Your task to perform on an android device: open app "Adobe Express: Graphic Design" (install if not already installed) Image 0: 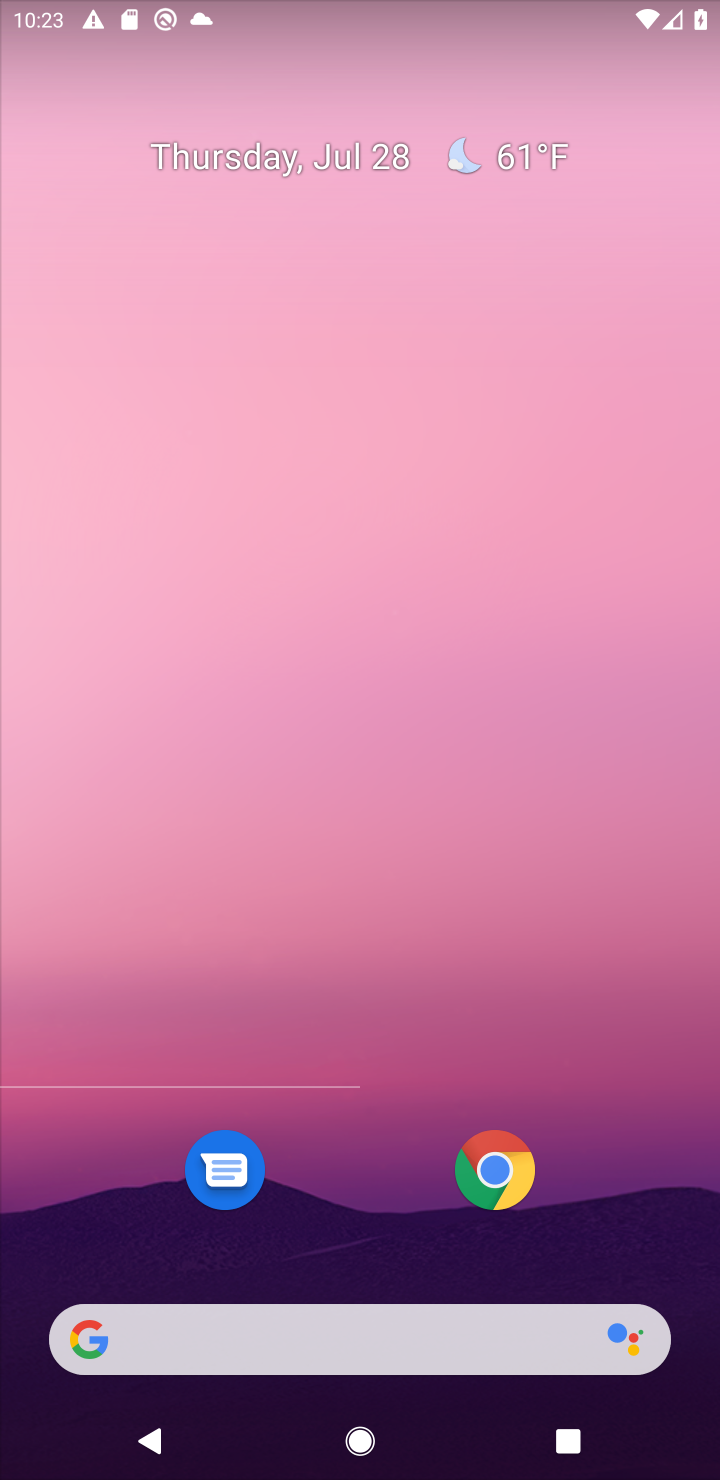
Step 0: press home button
Your task to perform on an android device: open app "Adobe Express: Graphic Design" (install if not already installed) Image 1: 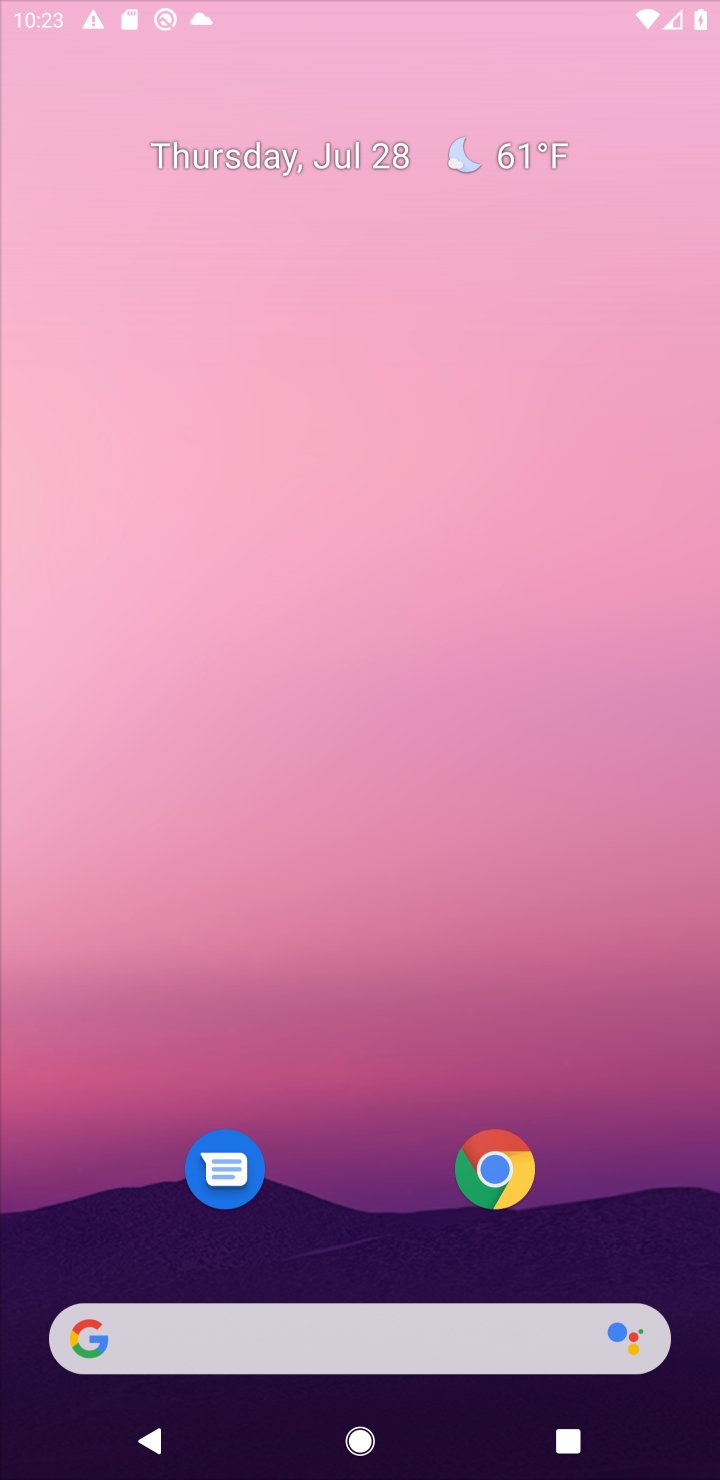
Step 1: drag from (347, 668) to (367, 169)
Your task to perform on an android device: open app "Adobe Express: Graphic Design" (install if not already installed) Image 2: 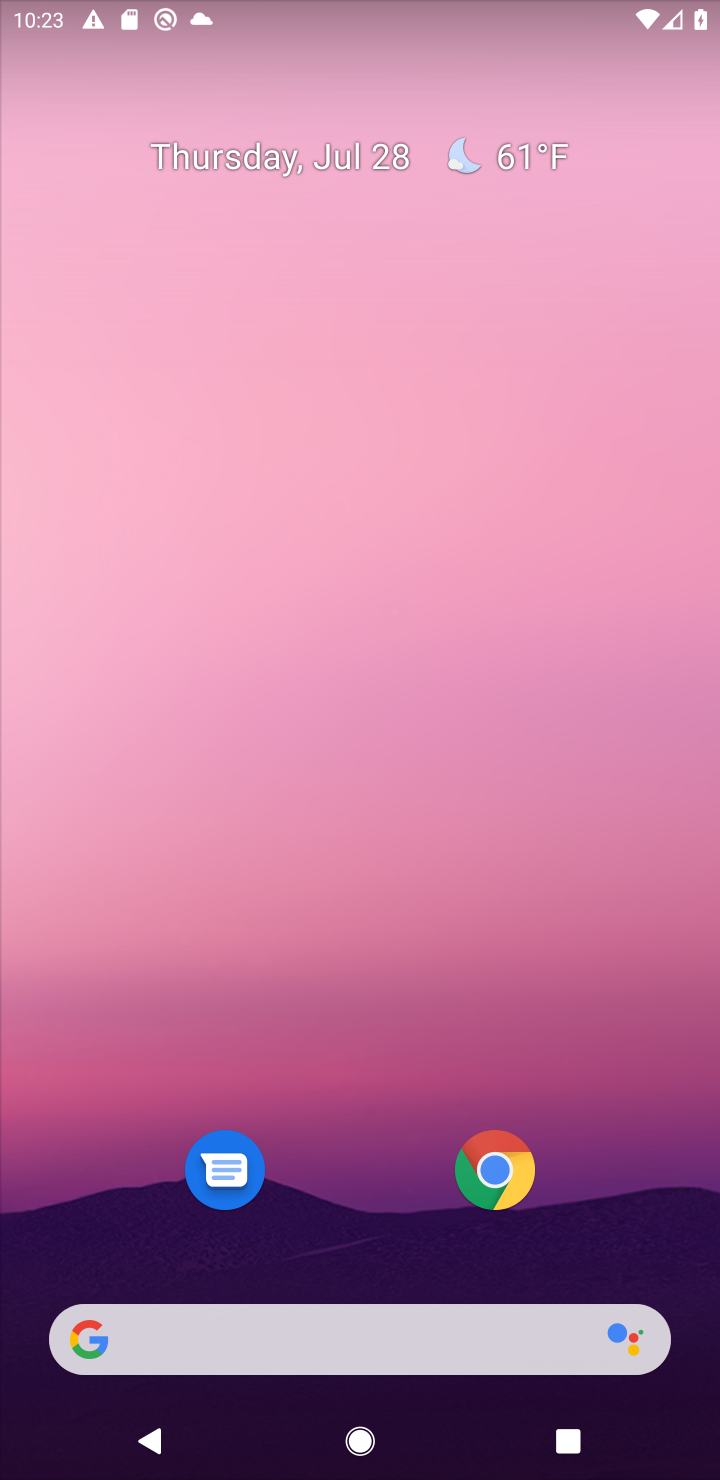
Step 2: drag from (334, 1204) to (370, 14)
Your task to perform on an android device: open app "Adobe Express: Graphic Design" (install if not already installed) Image 3: 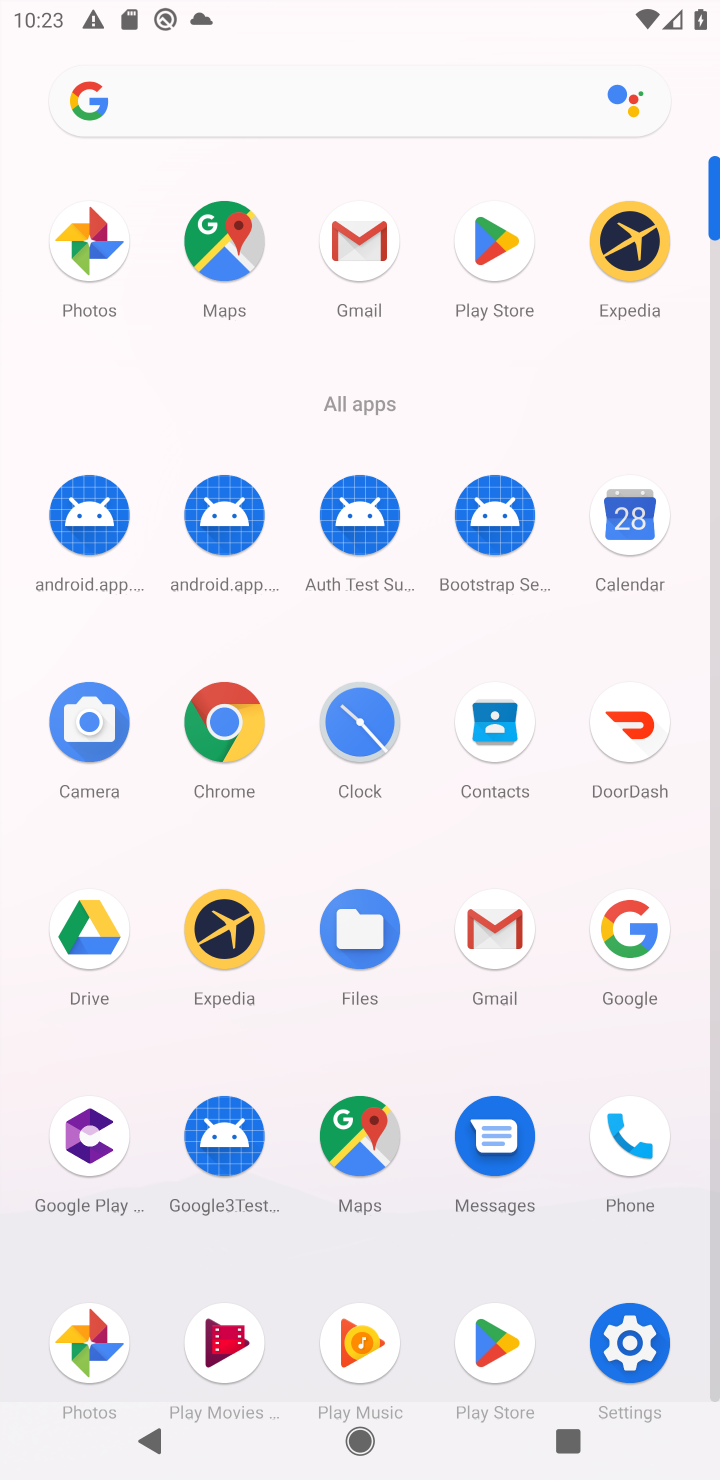
Step 3: click (508, 1346)
Your task to perform on an android device: open app "Adobe Express: Graphic Design" (install if not already installed) Image 4: 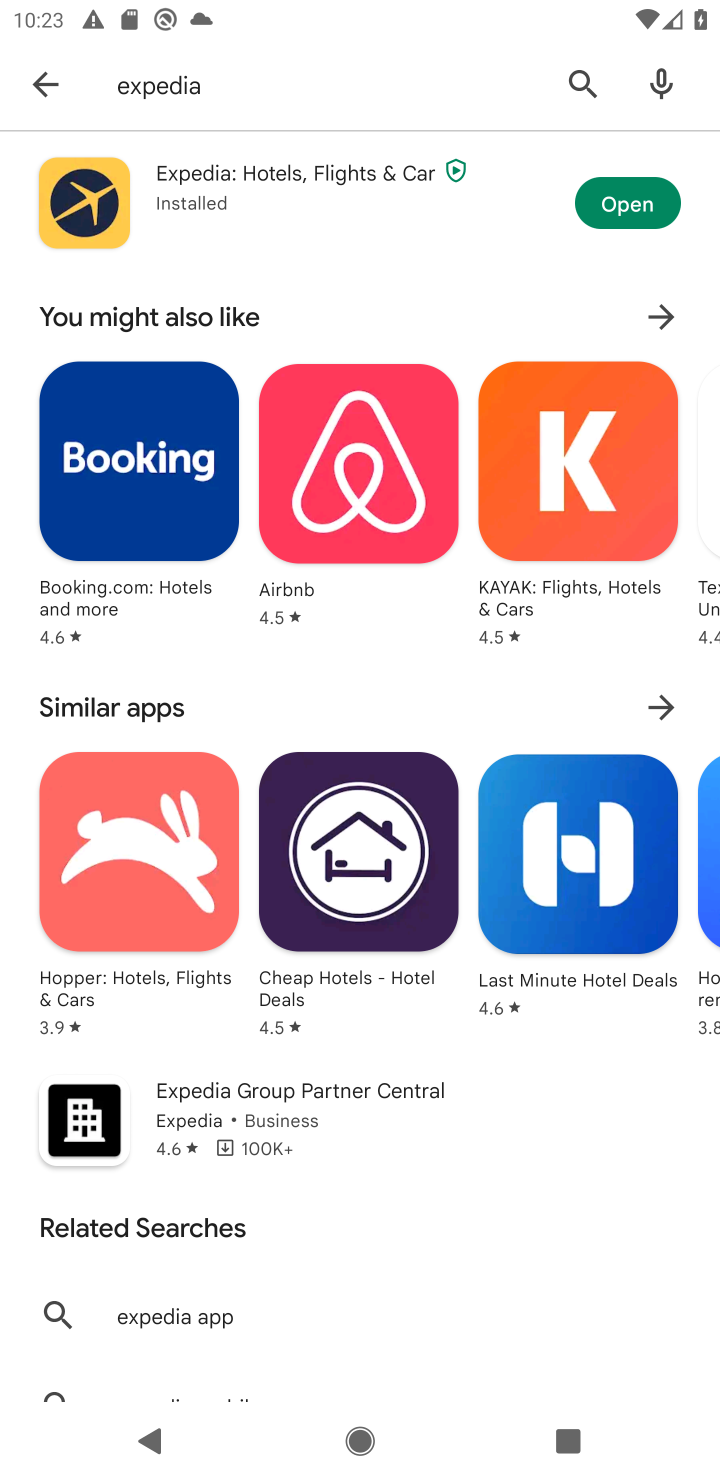
Step 4: click (226, 92)
Your task to perform on an android device: open app "Adobe Express: Graphic Design" (install if not already installed) Image 5: 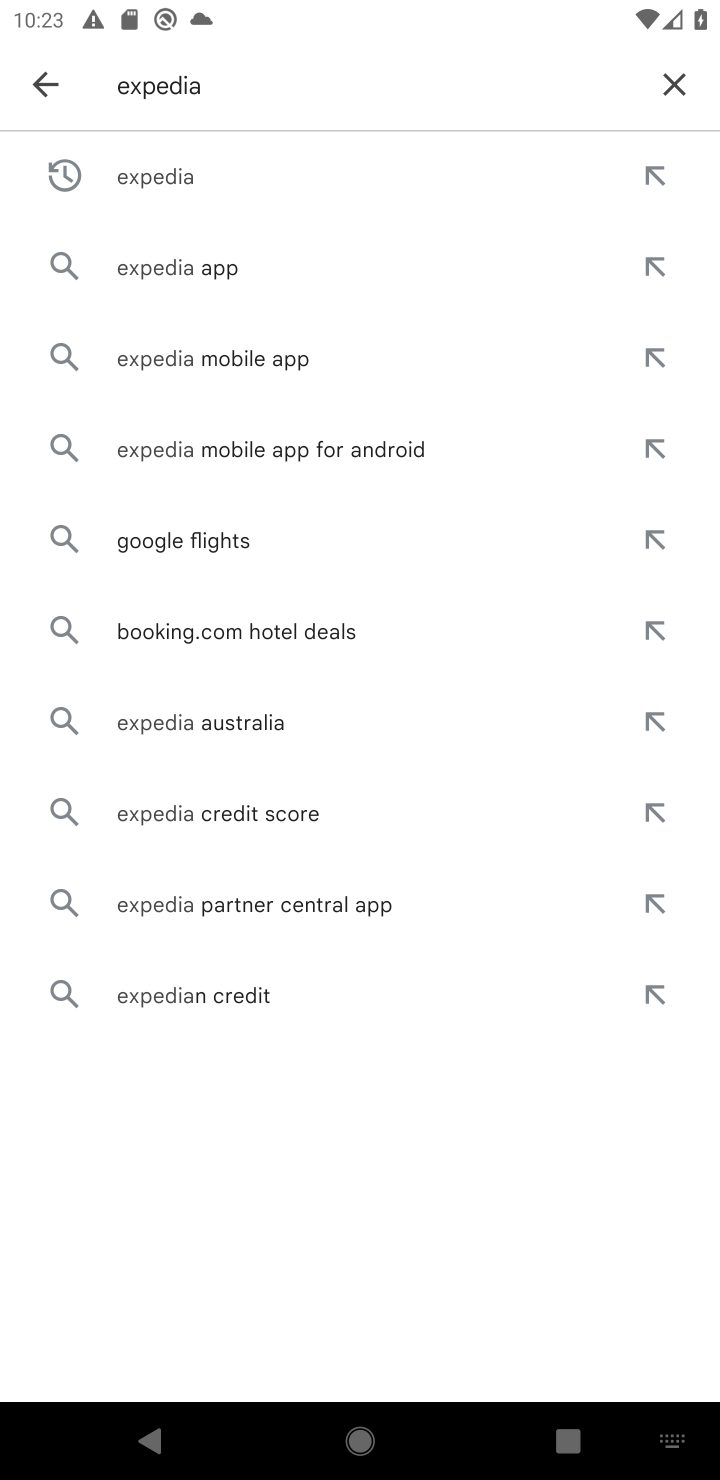
Step 5: click (668, 64)
Your task to perform on an android device: open app "Adobe Express: Graphic Design" (install if not already installed) Image 6: 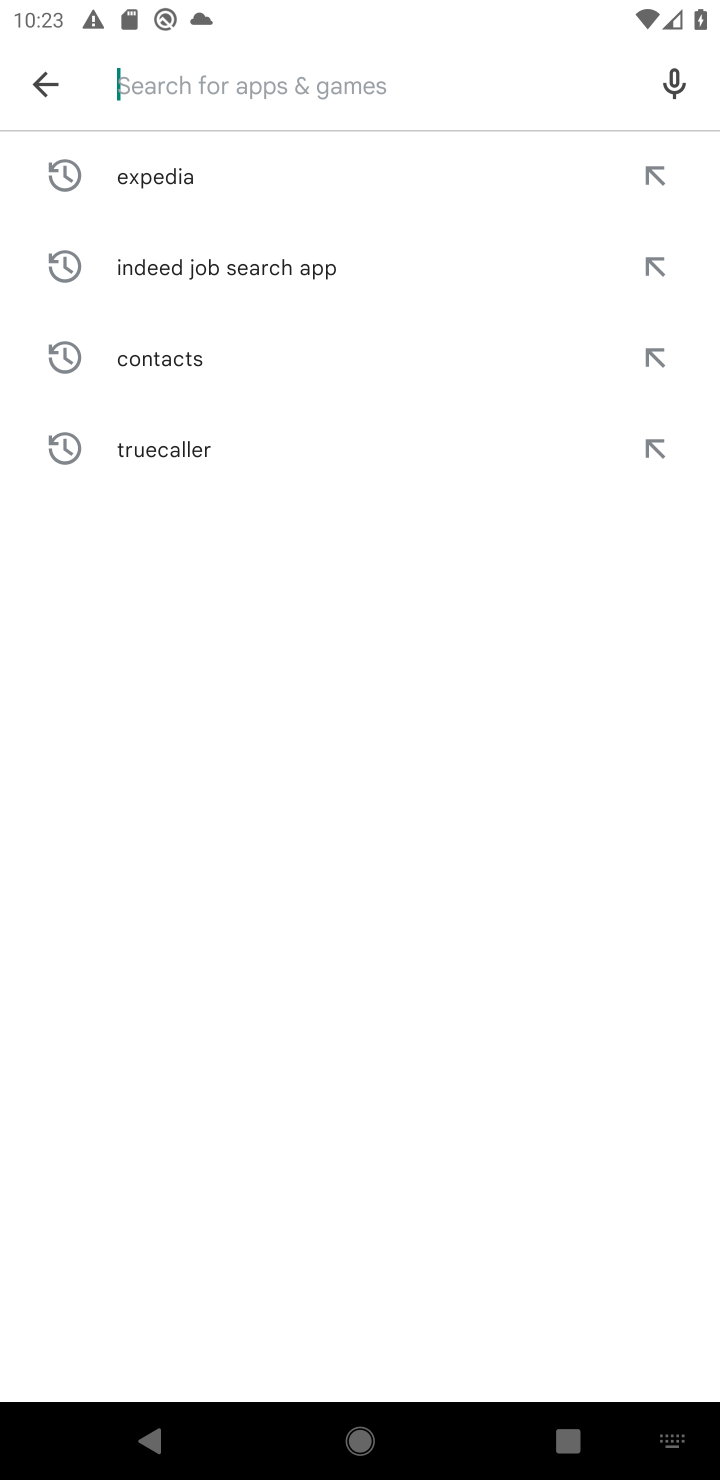
Step 6: type "Adobe Express"
Your task to perform on an android device: open app "Adobe Express: Graphic Design" (install if not already installed) Image 7: 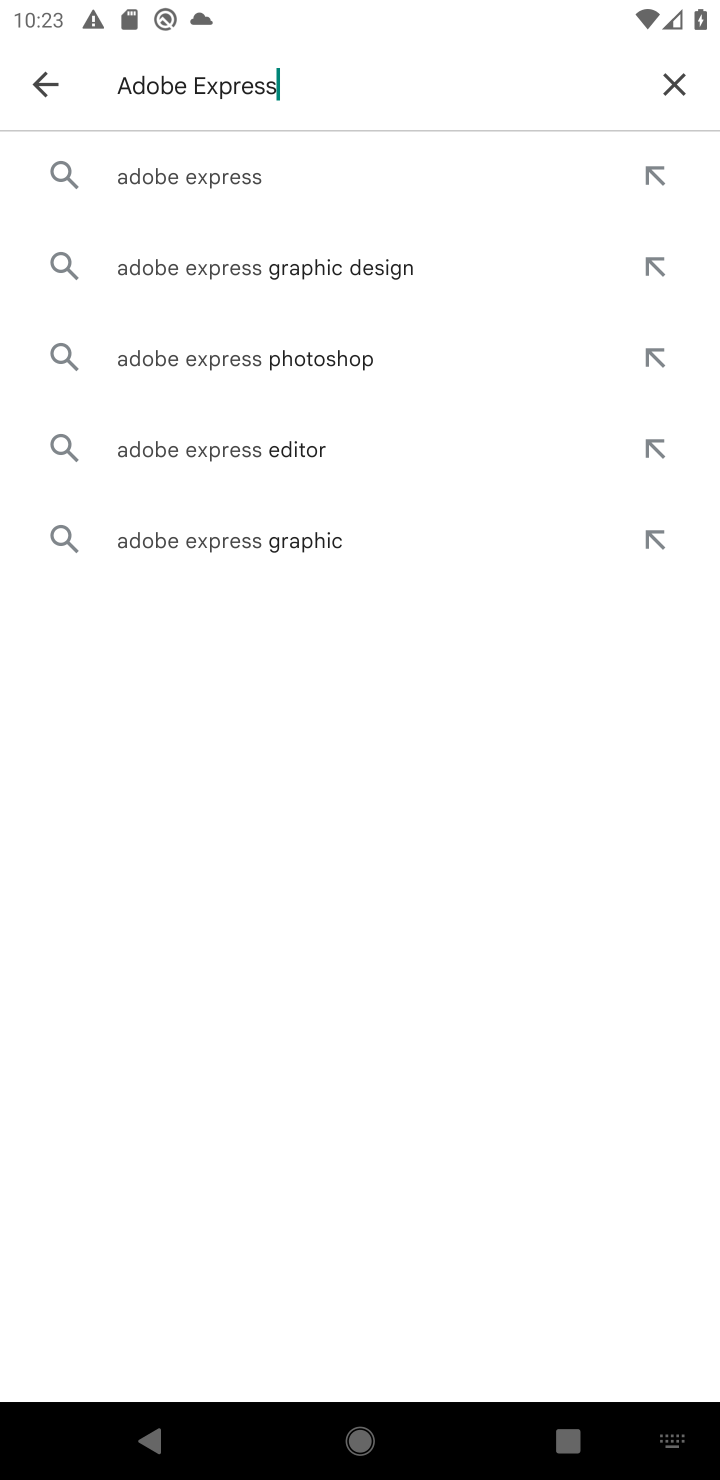
Step 7: click (228, 151)
Your task to perform on an android device: open app "Adobe Express: Graphic Design" (install if not already installed) Image 8: 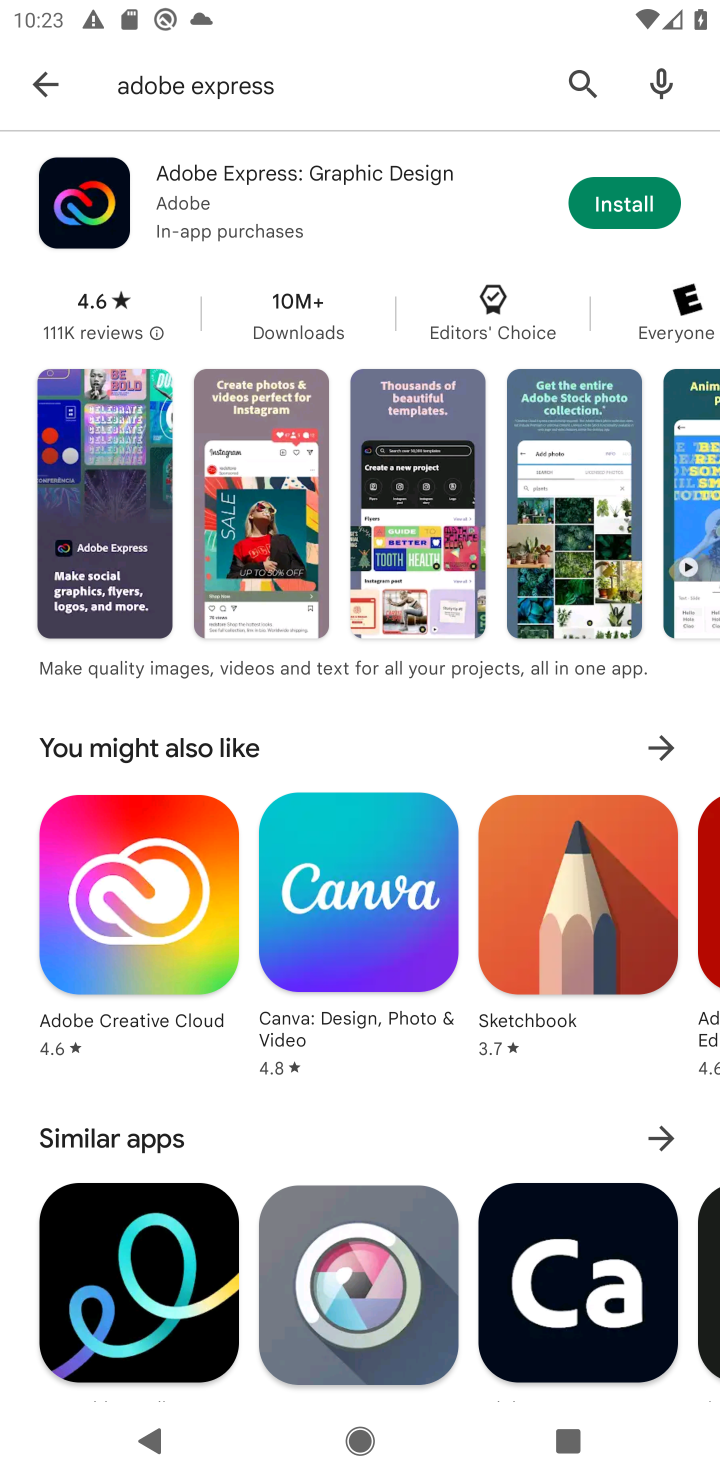
Step 8: click (628, 210)
Your task to perform on an android device: open app "Adobe Express: Graphic Design" (install if not already installed) Image 9: 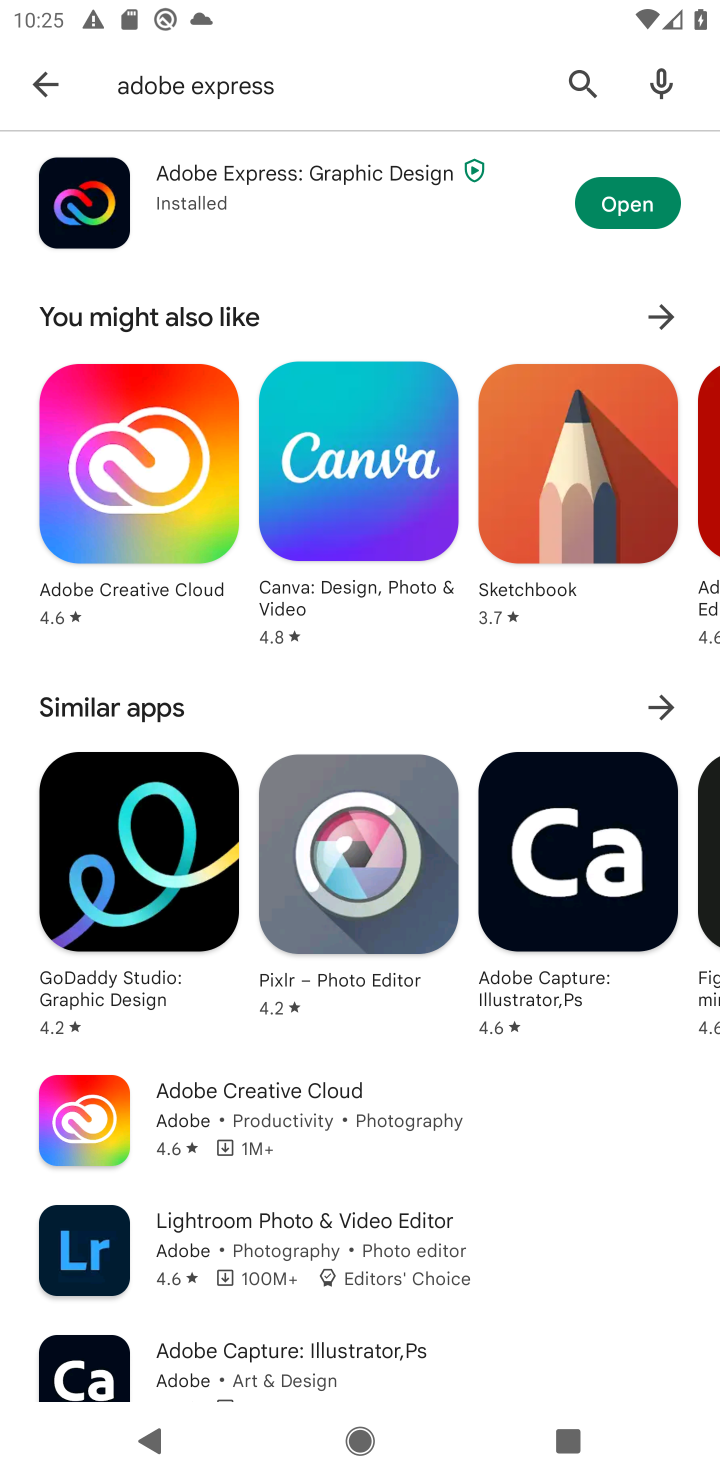
Step 9: click (657, 207)
Your task to perform on an android device: open app "Adobe Express: Graphic Design" (install if not already installed) Image 10: 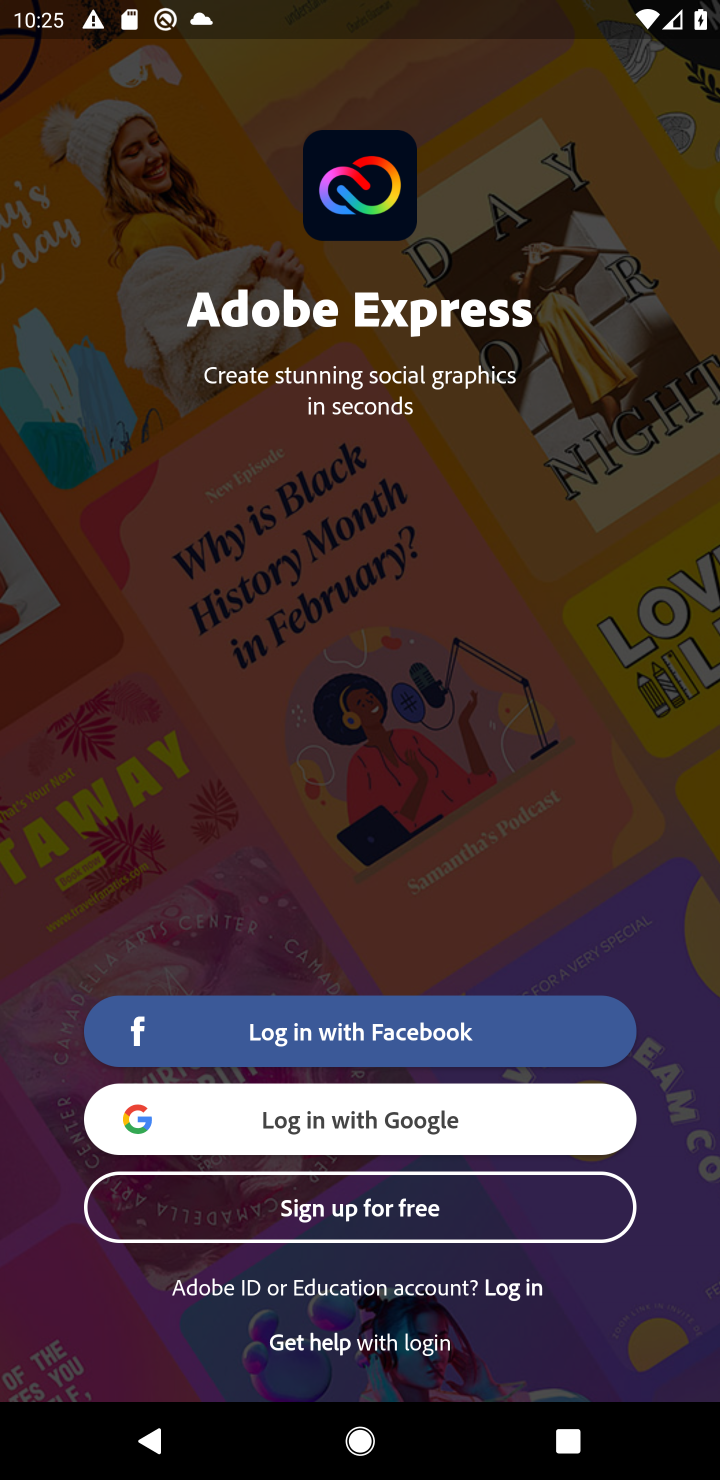
Step 10: click (376, 1121)
Your task to perform on an android device: open app "Adobe Express: Graphic Design" (install if not already installed) Image 11: 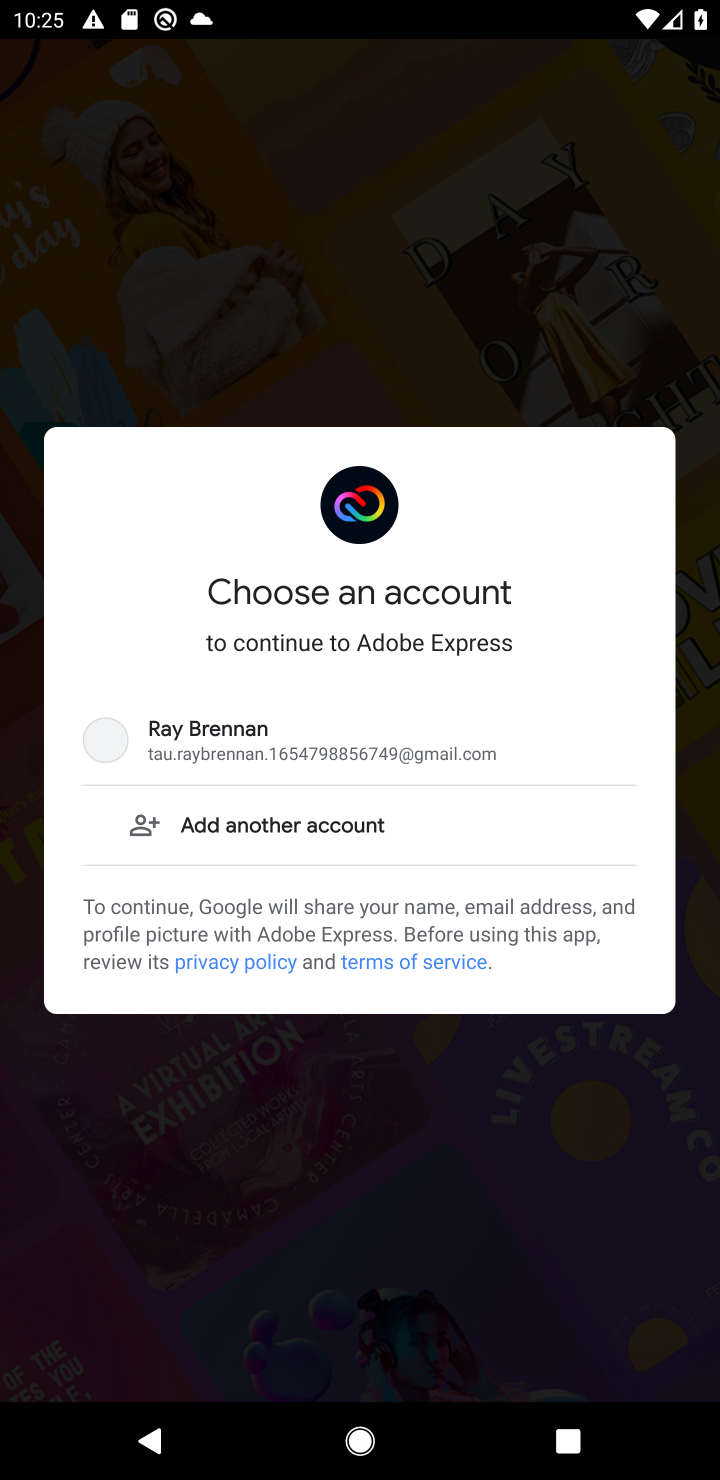
Step 11: click (240, 735)
Your task to perform on an android device: open app "Adobe Express: Graphic Design" (install if not already installed) Image 12: 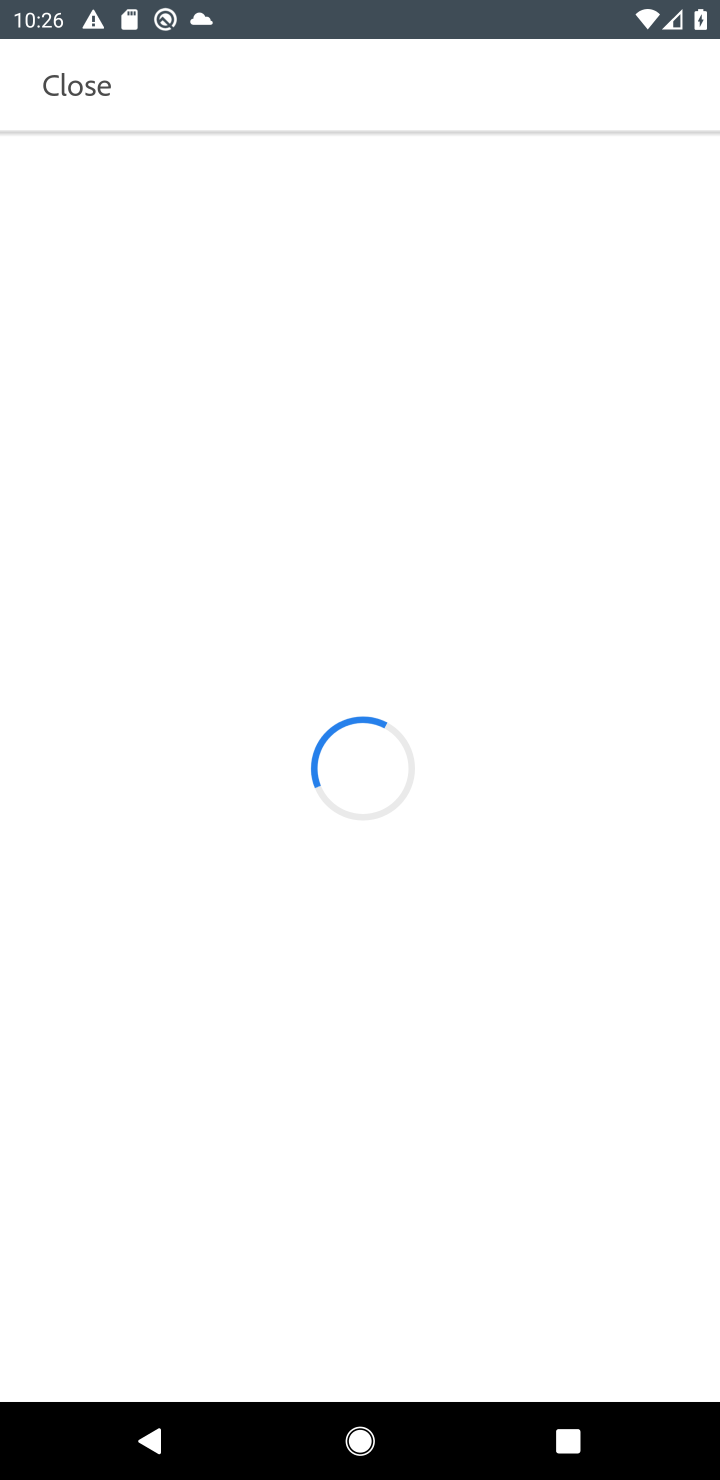
Step 12: press home button
Your task to perform on an android device: open app "Adobe Express: Graphic Design" (install if not already installed) Image 13: 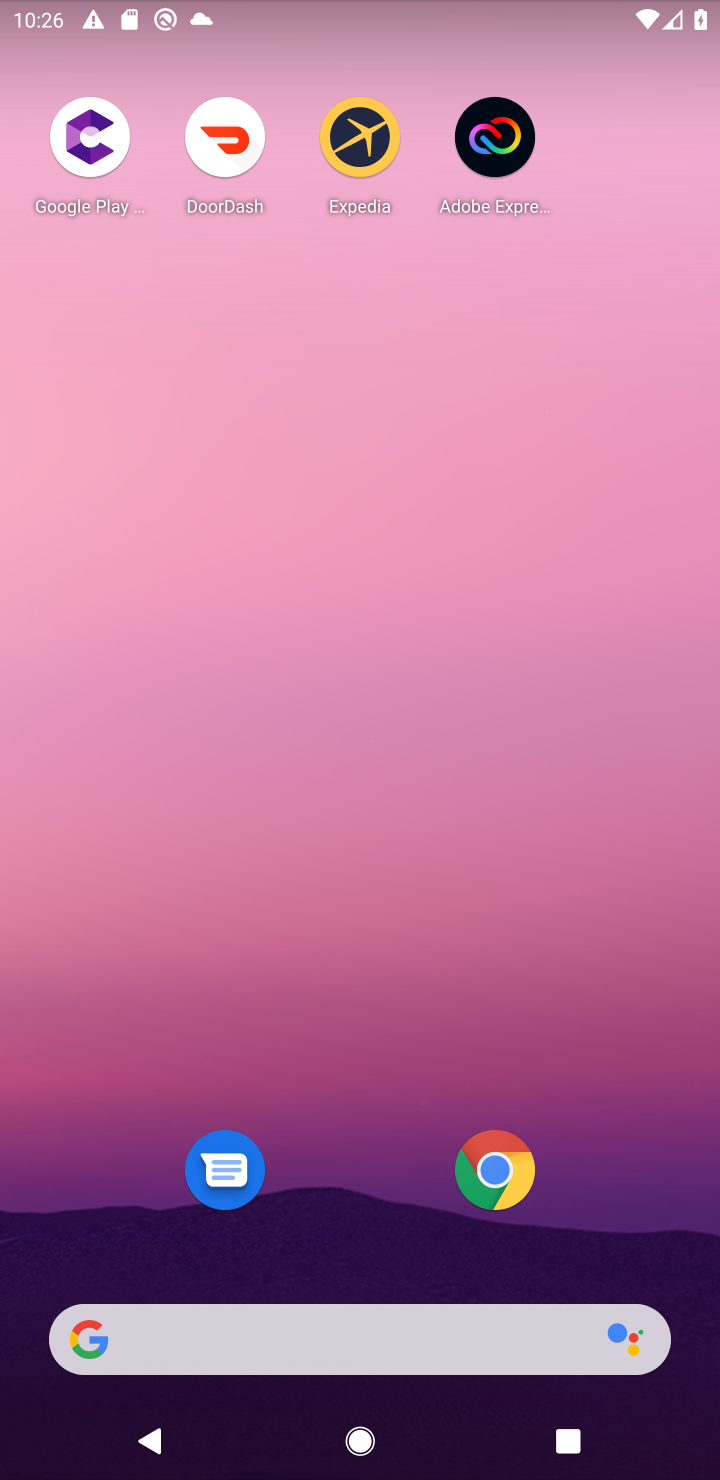
Step 13: drag from (306, 1222) to (519, 10)
Your task to perform on an android device: open app "Adobe Express: Graphic Design" (install if not already installed) Image 14: 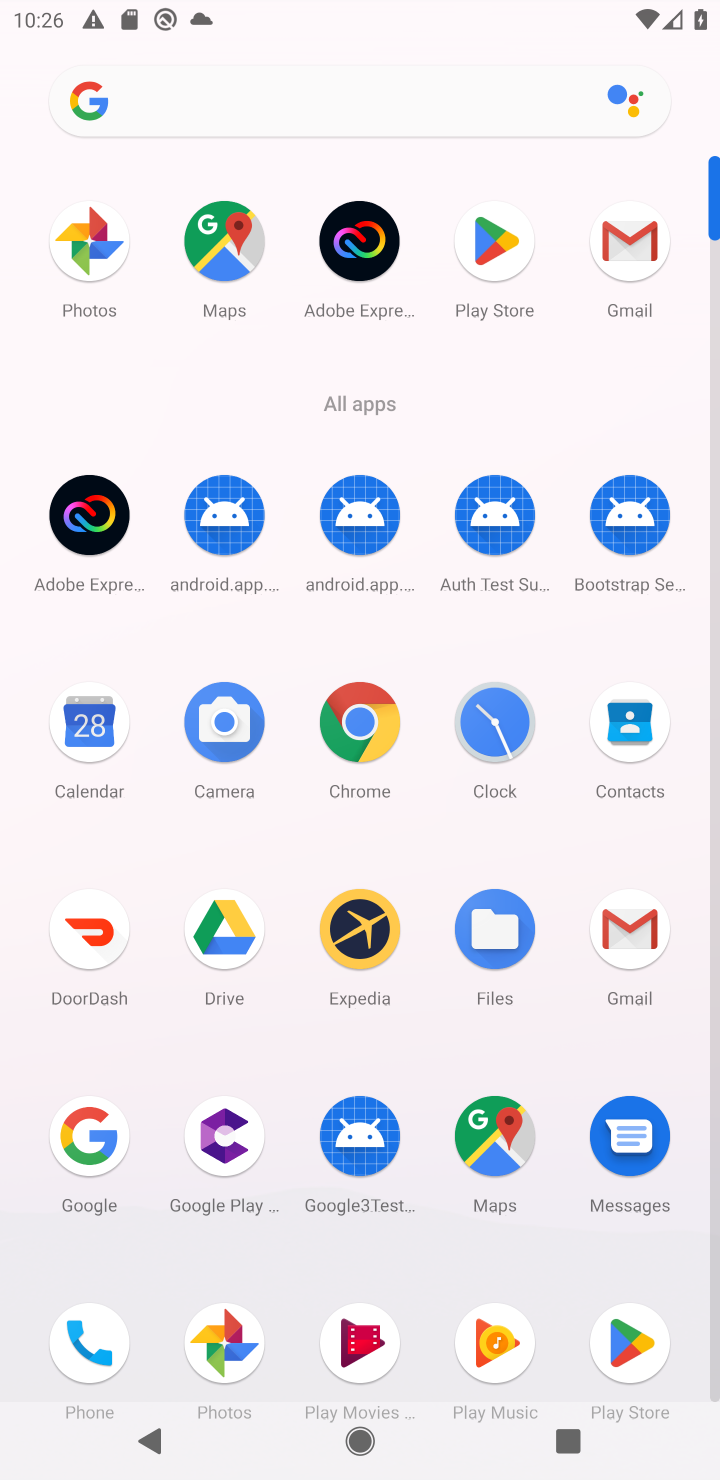
Step 14: click (513, 266)
Your task to perform on an android device: open app "Adobe Express: Graphic Design" (install if not already installed) Image 15: 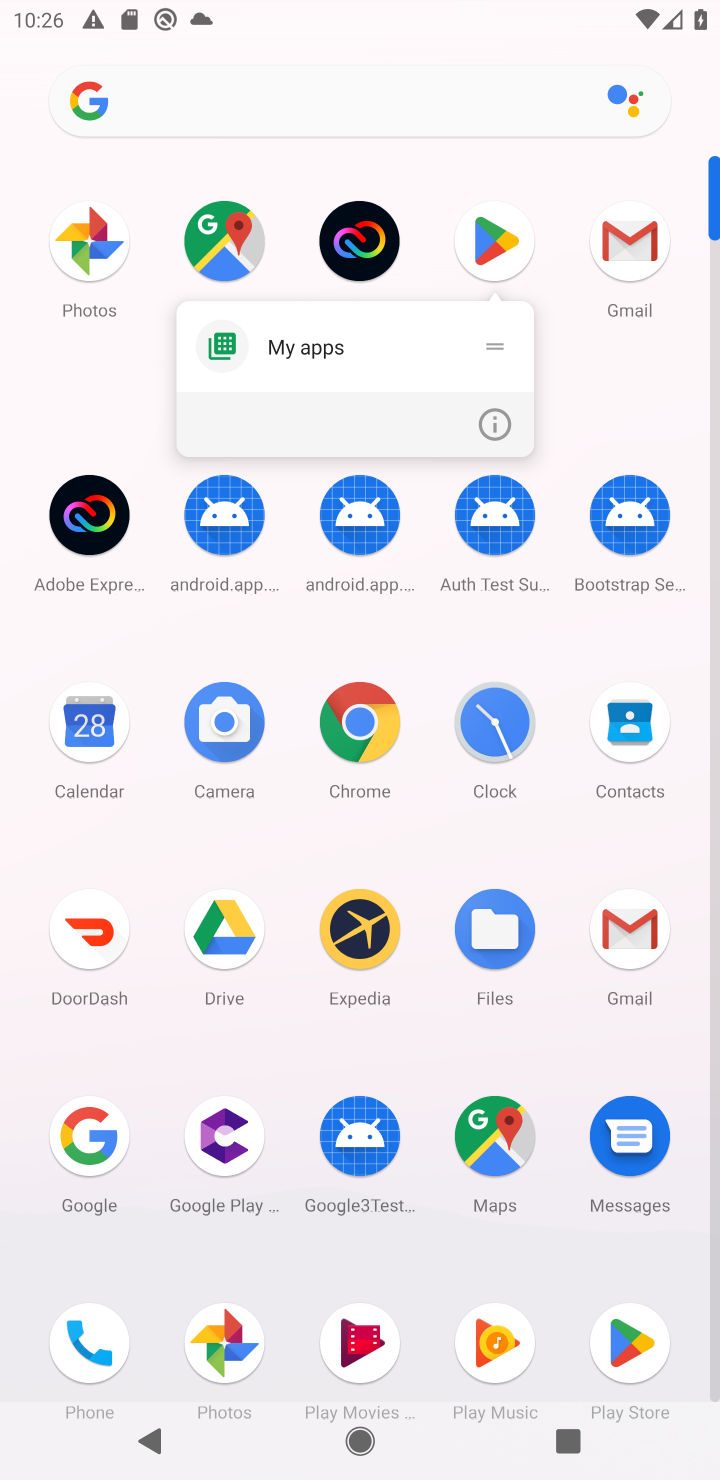
Step 15: click (511, 259)
Your task to perform on an android device: open app "Adobe Express: Graphic Design" (install if not already installed) Image 16: 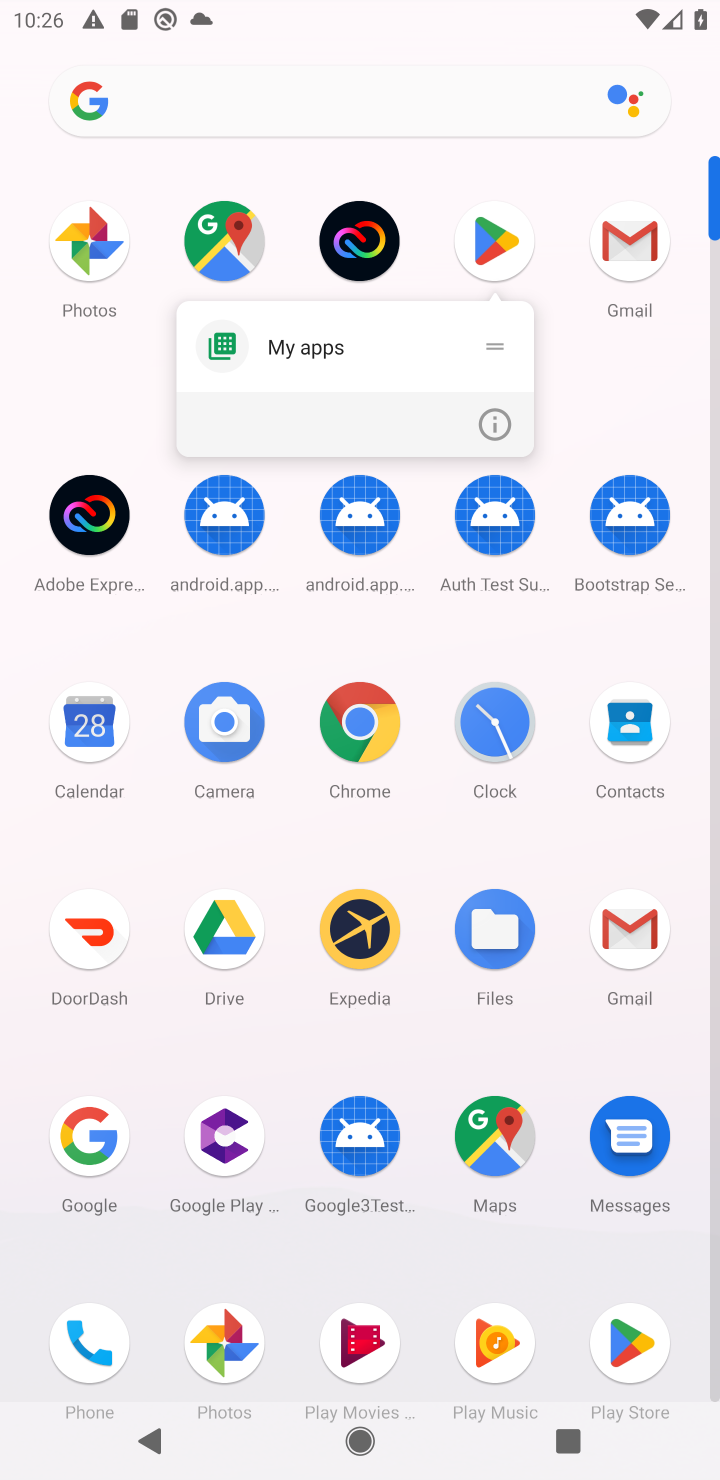
Step 16: click (514, 264)
Your task to perform on an android device: open app "Adobe Express: Graphic Design" (install if not already installed) Image 17: 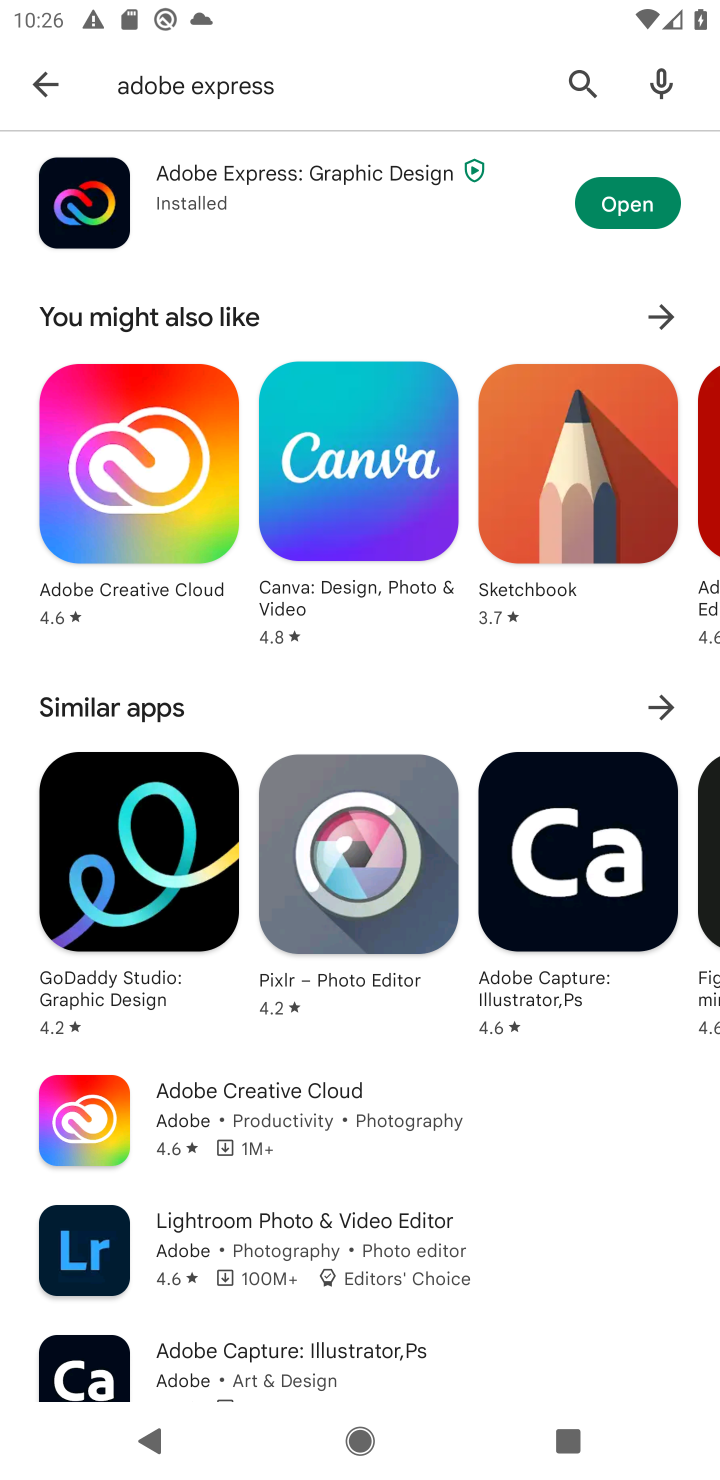
Step 17: click (507, 274)
Your task to perform on an android device: open app "Adobe Express: Graphic Design" (install if not already installed) Image 18: 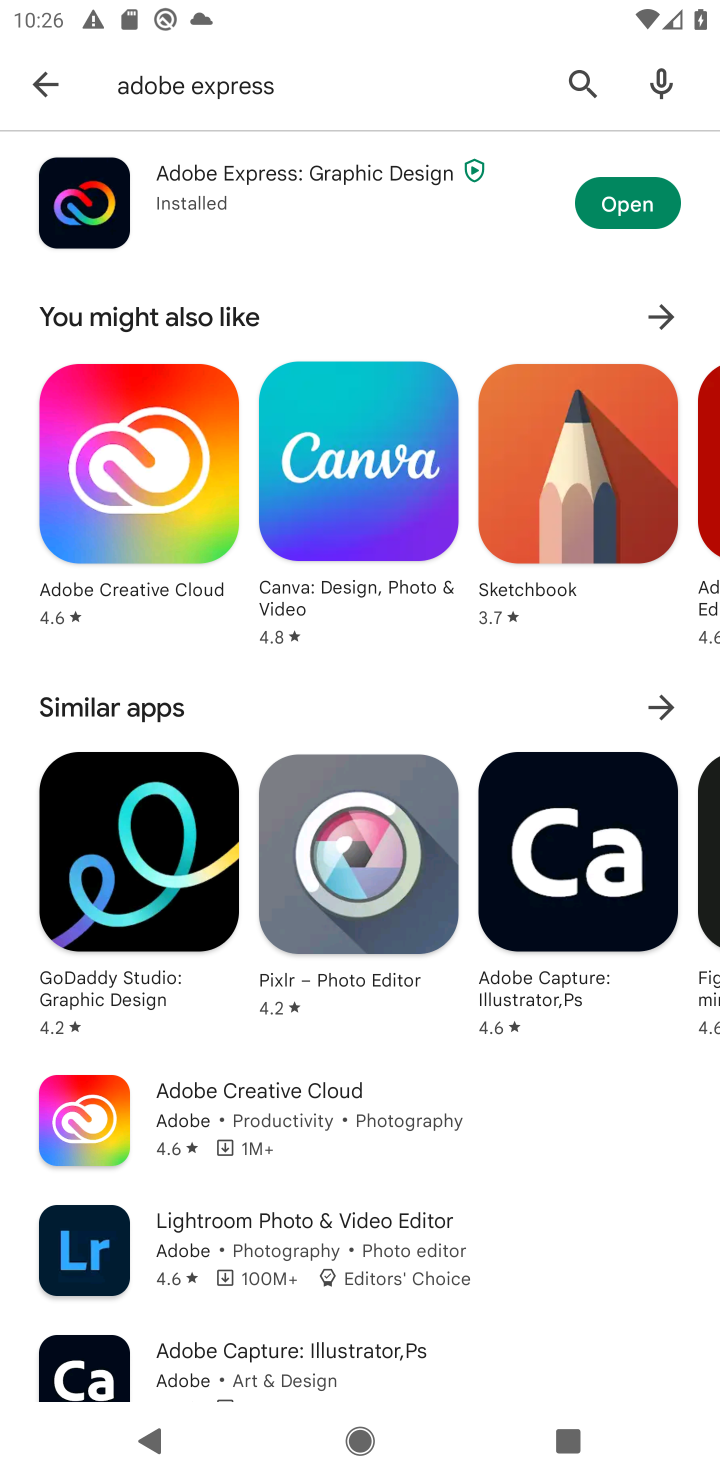
Step 18: click (260, 93)
Your task to perform on an android device: open app "Adobe Express: Graphic Design" (install if not already installed) Image 19: 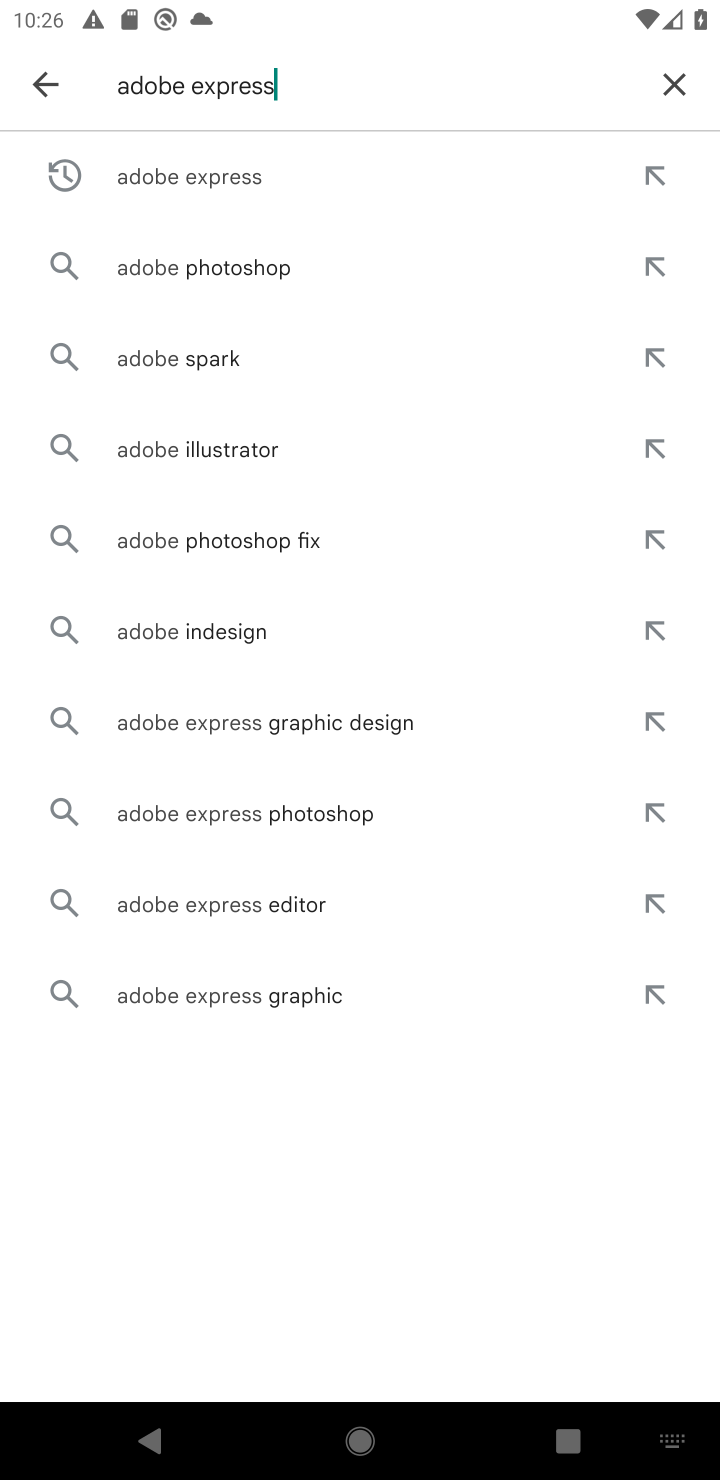
Step 19: click (686, 77)
Your task to perform on an android device: open app "Adobe Express: Graphic Design" (install if not already installed) Image 20: 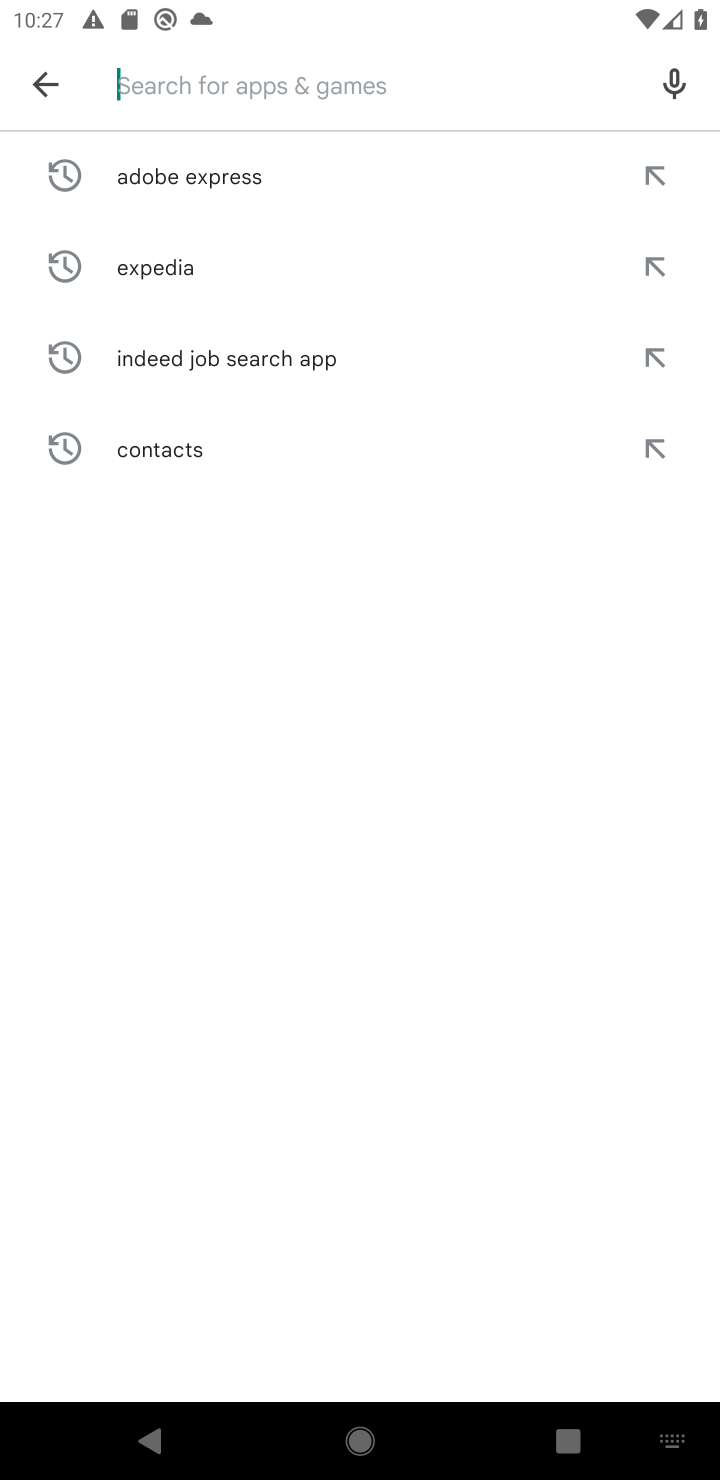
Step 20: type "Adobe Express"
Your task to perform on an android device: open app "Adobe Express: Graphic Design" (install if not already installed) Image 21: 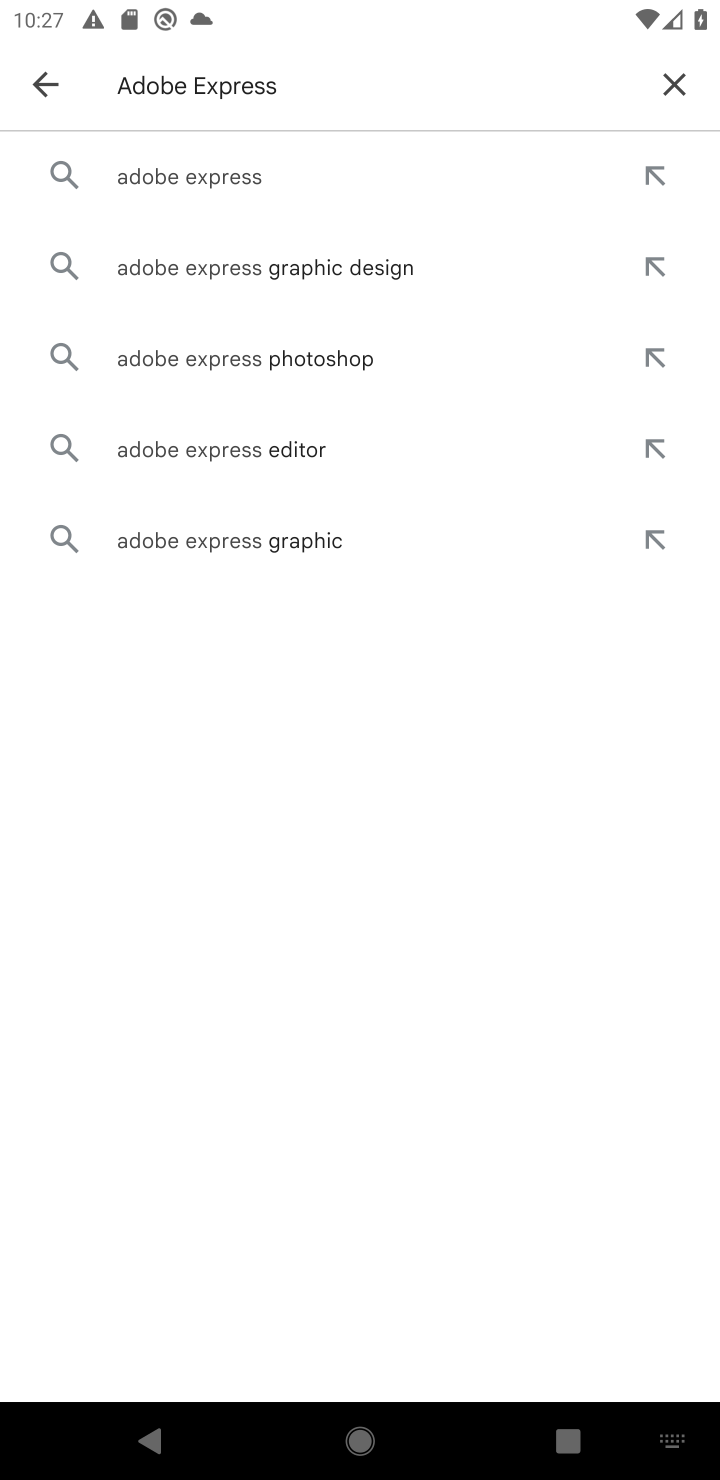
Step 21: click (189, 190)
Your task to perform on an android device: open app "Adobe Express: Graphic Design" (install if not already installed) Image 22: 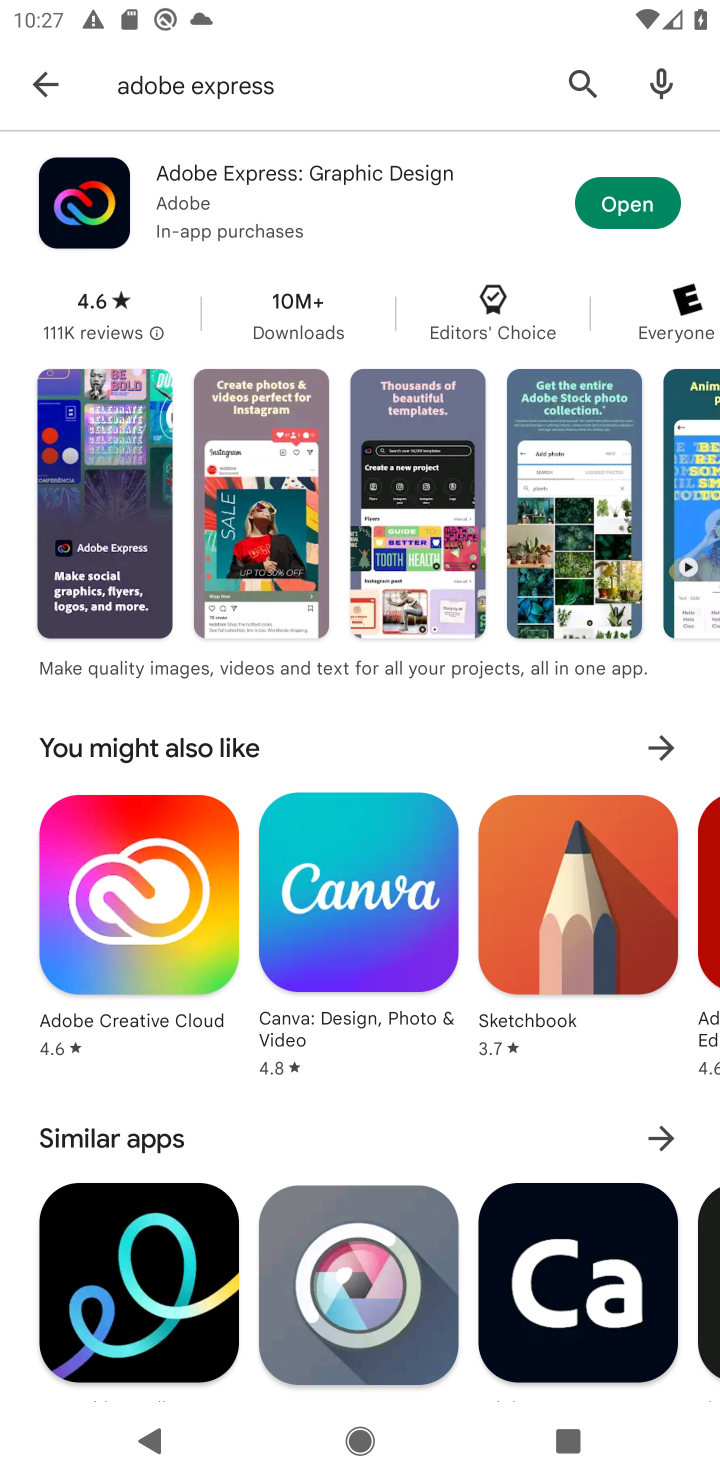
Step 22: click (629, 197)
Your task to perform on an android device: open app "Adobe Express: Graphic Design" (install if not already installed) Image 23: 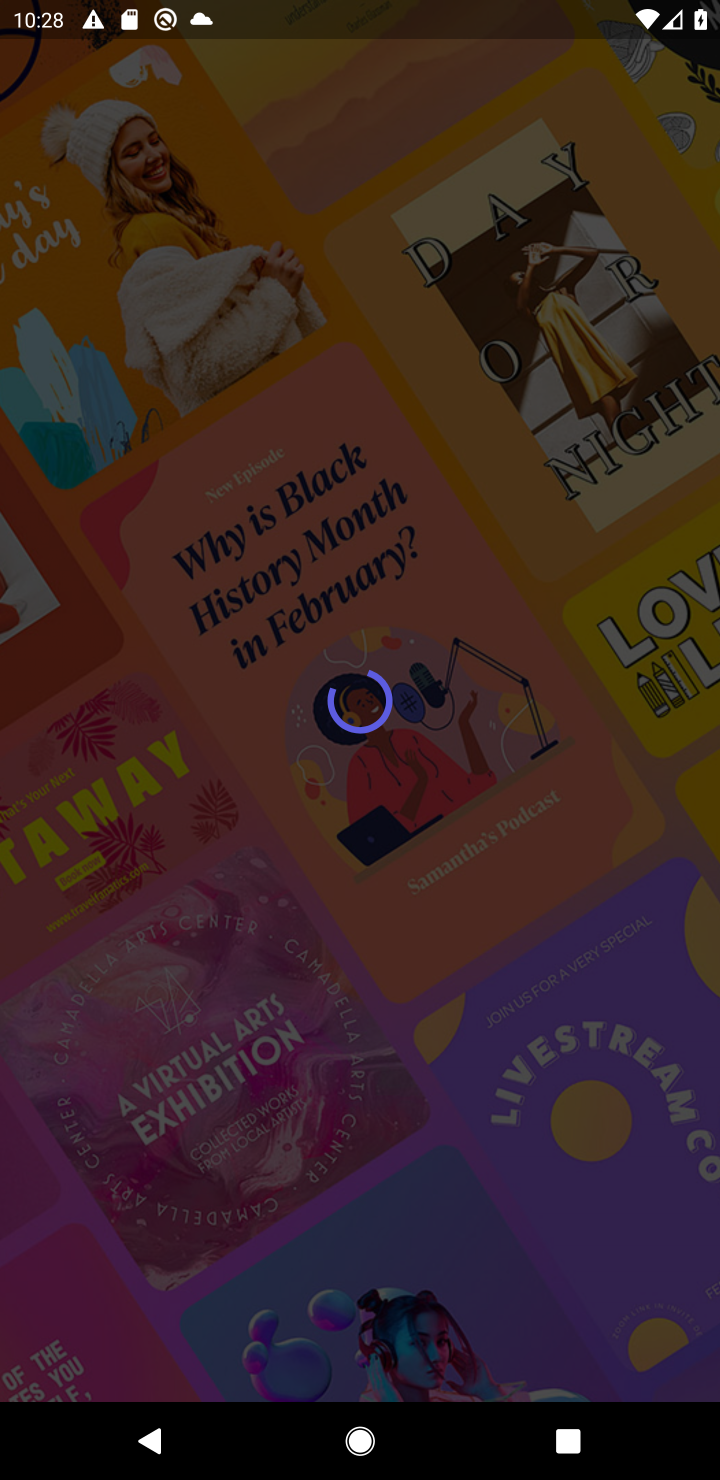
Step 23: click (331, 829)
Your task to perform on an android device: open app "Adobe Express: Graphic Design" (install if not already installed) Image 24: 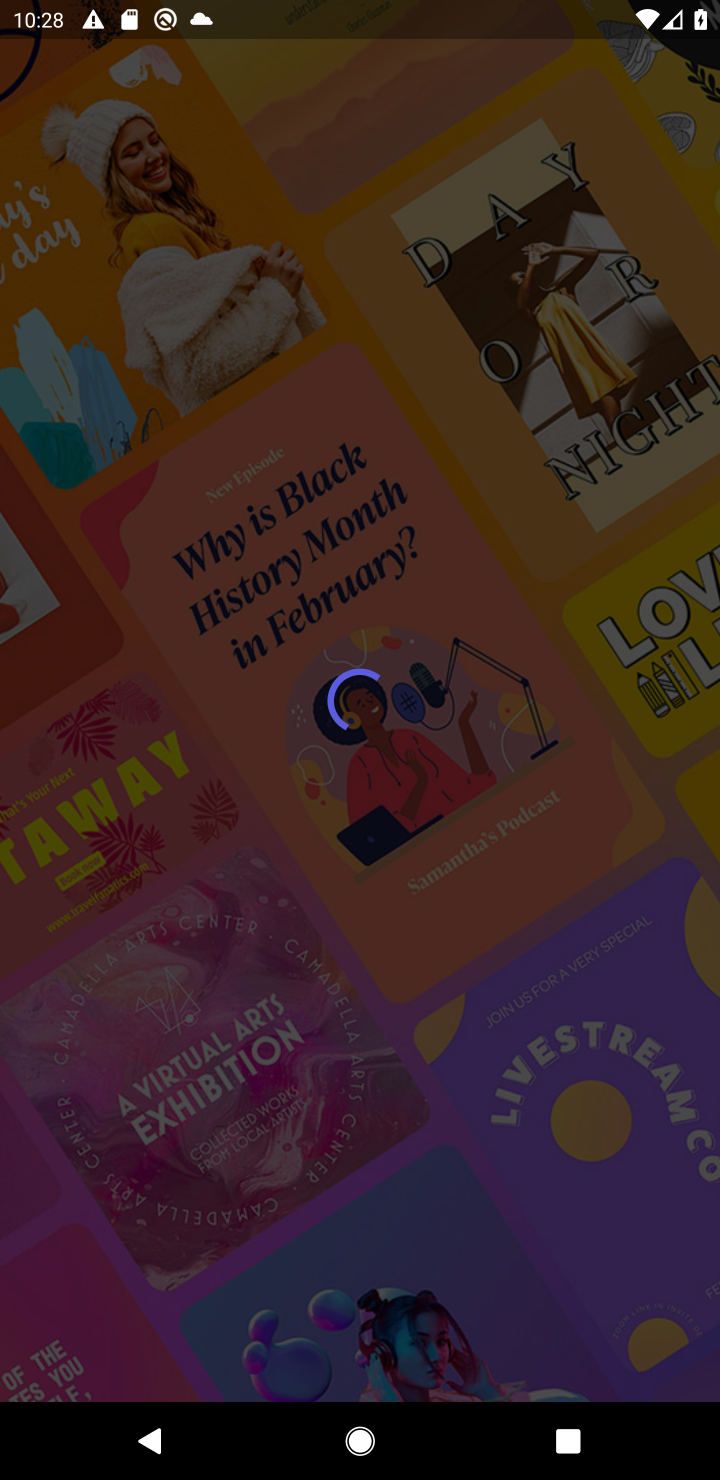
Step 24: task complete